Your task to perform on an android device: open a bookmark in the chrome app Image 0: 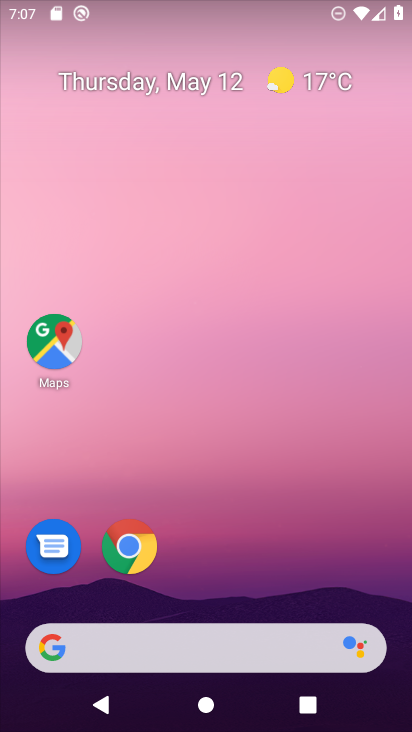
Step 0: click (128, 546)
Your task to perform on an android device: open a bookmark in the chrome app Image 1: 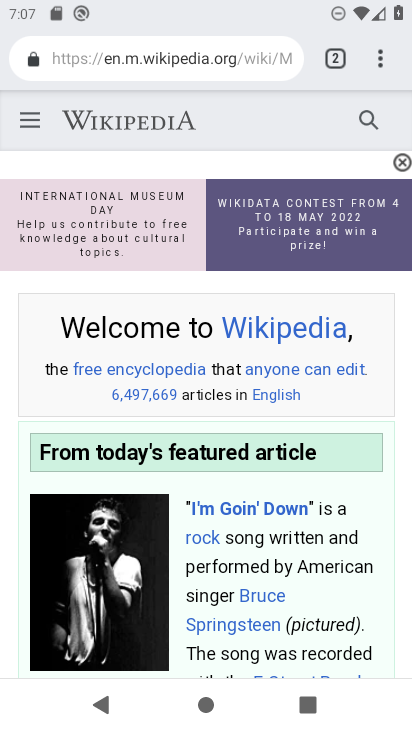
Step 1: click (380, 53)
Your task to perform on an android device: open a bookmark in the chrome app Image 2: 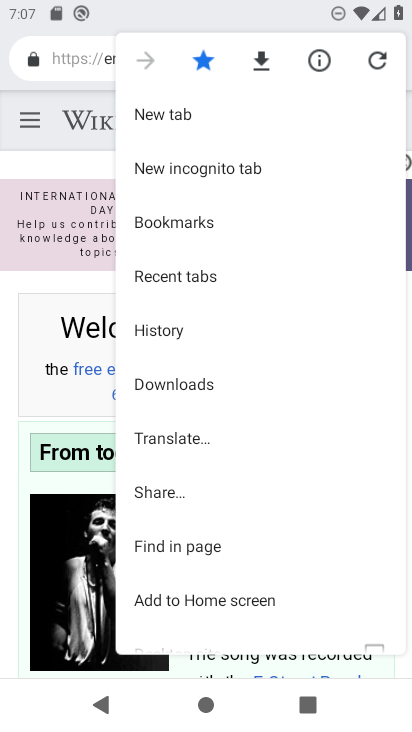
Step 2: click (177, 219)
Your task to perform on an android device: open a bookmark in the chrome app Image 3: 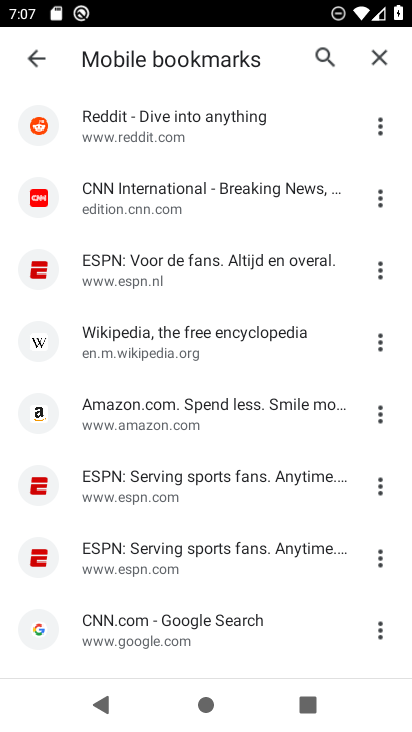
Step 3: task complete